Your task to perform on an android device: Open Google Chrome and open the bookmarks view Image 0: 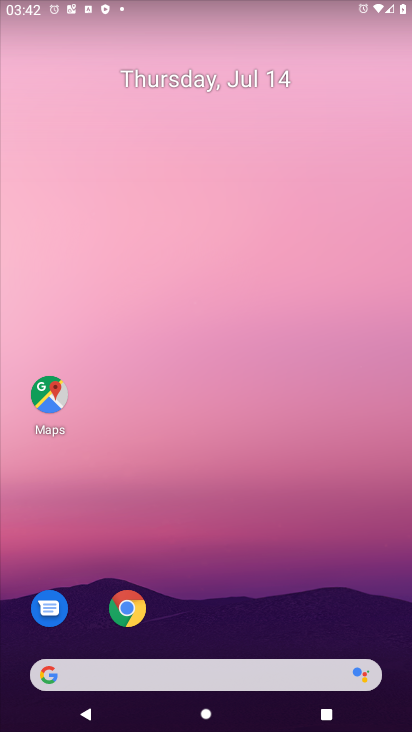
Step 0: click (127, 608)
Your task to perform on an android device: Open Google Chrome and open the bookmarks view Image 1: 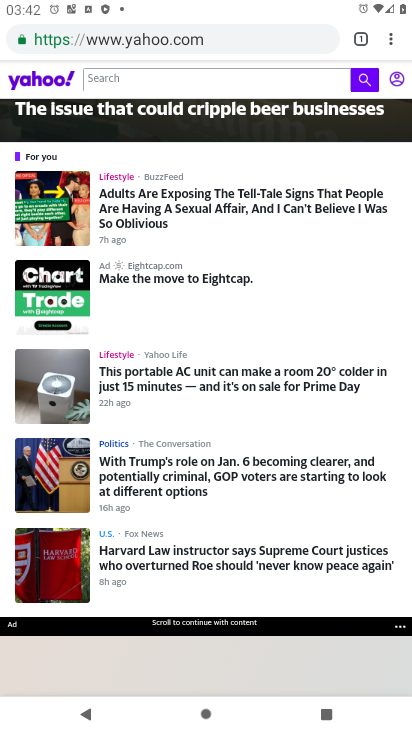
Step 1: click (392, 42)
Your task to perform on an android device: Open Google Chrome and open the bookmarks view Image 2: 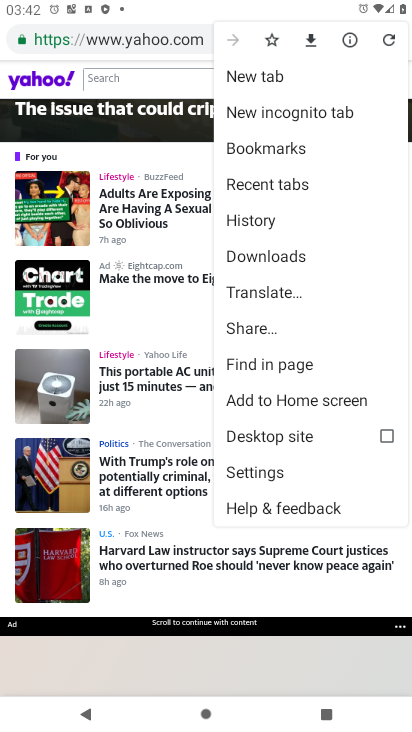
Step 2: click (262, 153)
Your task to perform on an android device: Open Google Chrome and open the bookmarks view Image 3: 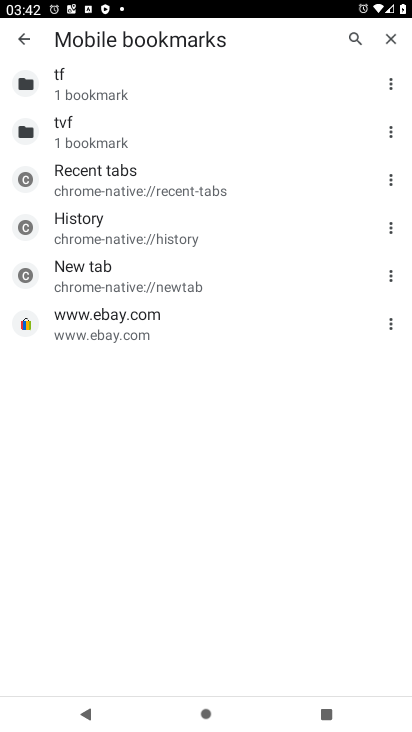
Step 3: task complete